Your task to perform on an android device: Go to Android settings Image 0: 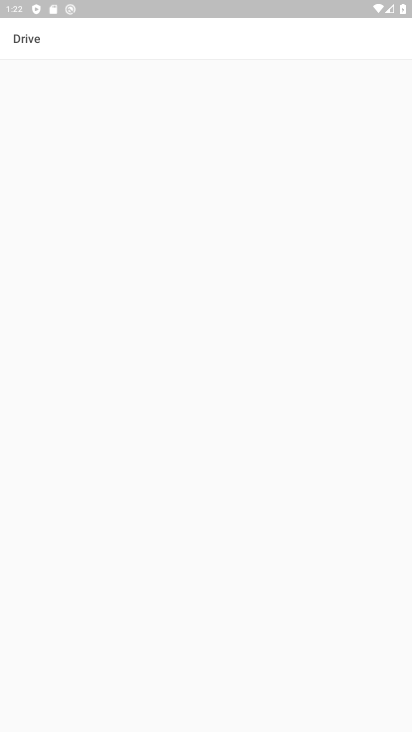
Step 0: press home button
Your task to perform on an android device: Go to Android settings Image 1: 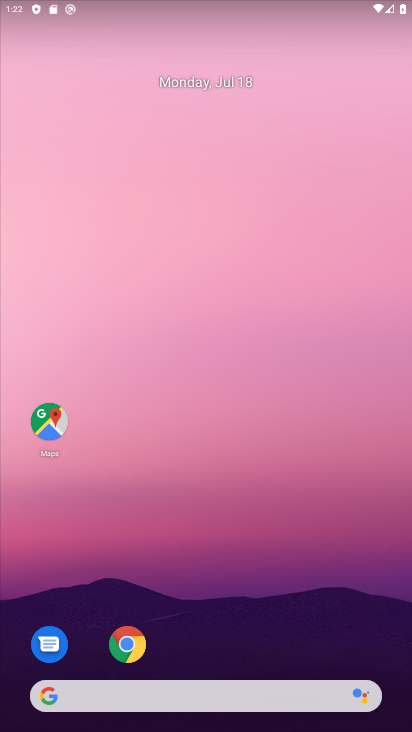
Step 1: drag from (264, 575) to (247, 39)
Your task to perform on an android device: Go to Android settings Image 2: 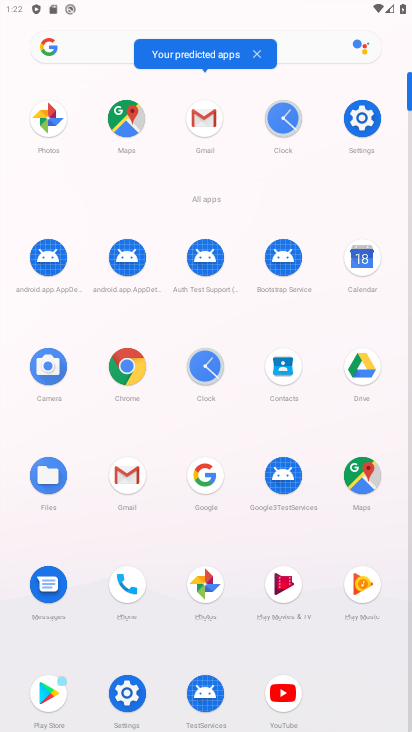
Step 2: click (356, 118)
Your task to perform on an android device: Go to Android settings Image 3: 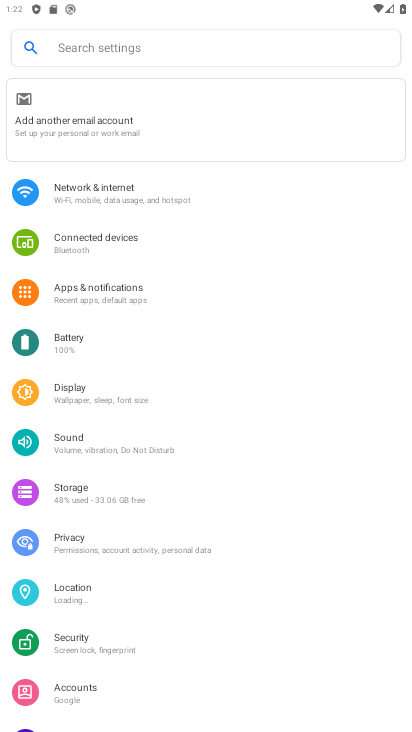
Step 3: drag from (197, 630) to (178, 389)
Your task to perform on an android device: Go to Android settings Image 4: 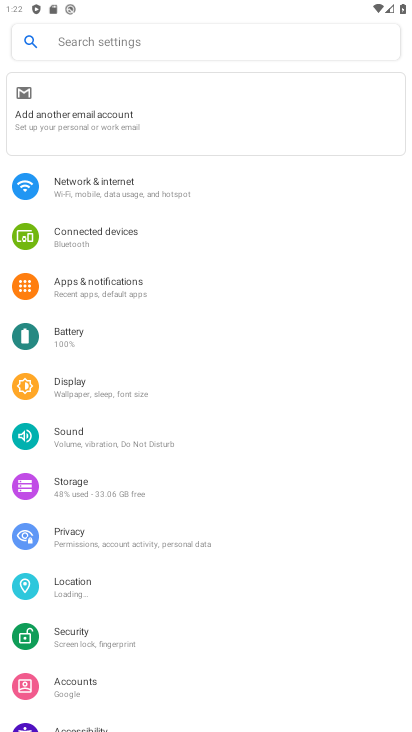
Step 4: drag from (105, 688) to (92, 330)
Your task to perform on an android device: Go to Android settings Image 5: 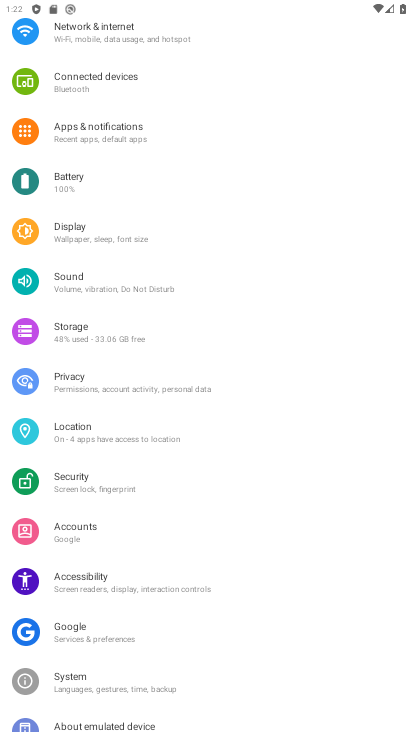
Step 5: click (104, 672)
Your task to perform on an android device: Go to Android settings Image 6: 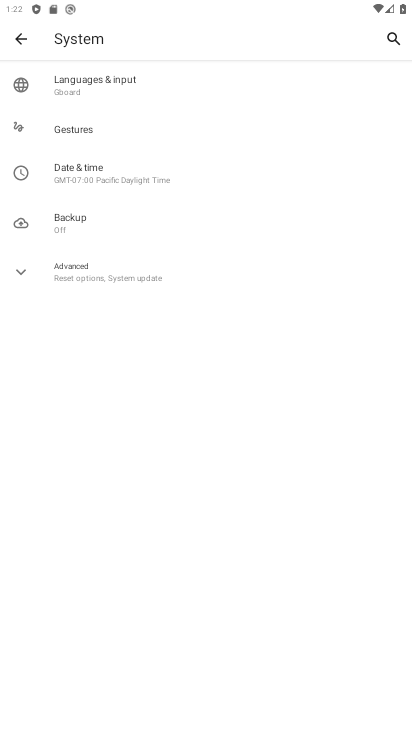
Step 6: task complete